Your task to perform on an android device: Go to Google Image 0: 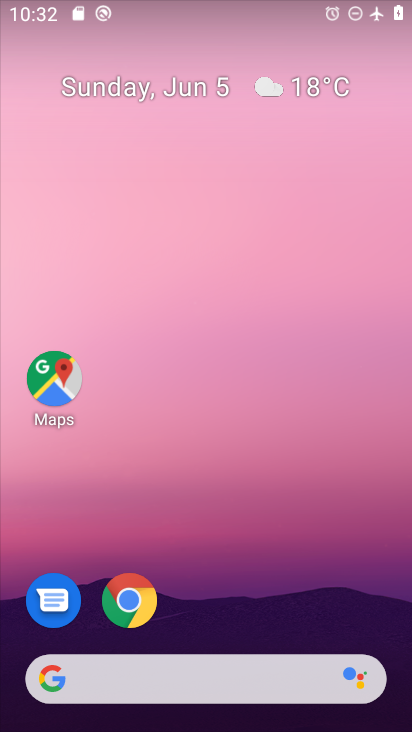
Step 0: click (165, 678)
Your task to perform on an android device: Go to Google Image 1: 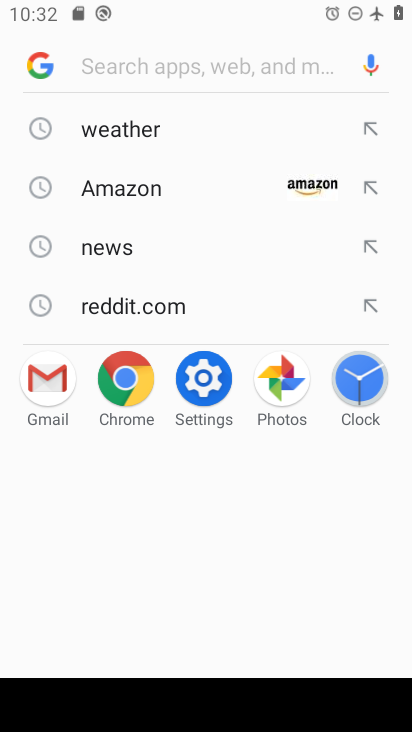
Step 1: click (35, 65)
Your task to perform on an android device: Go to Google Image 2: 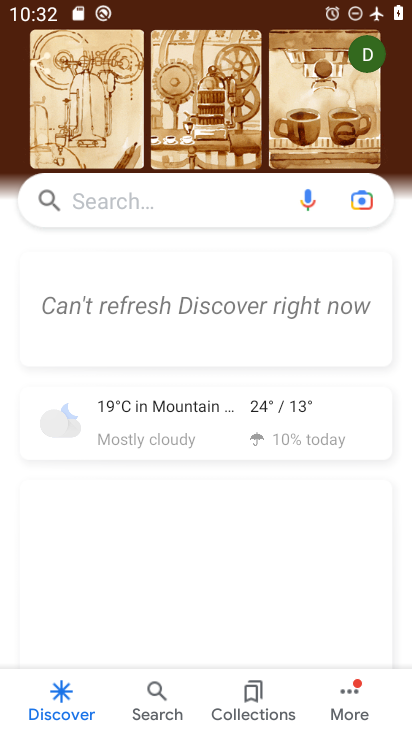
Step 2: task complete